Your task to perform on an android device: Check the news Image 0: 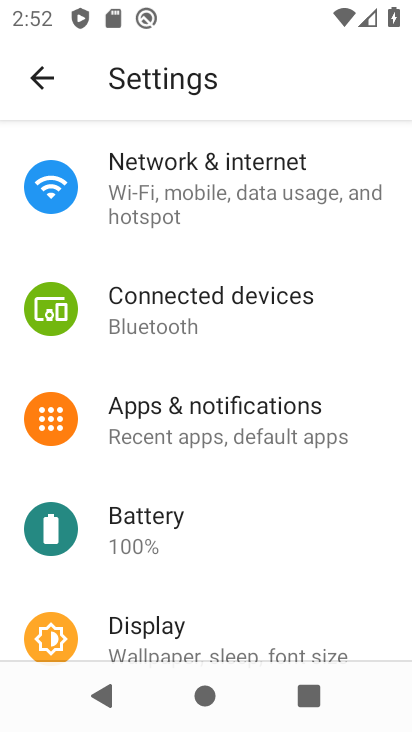
Step 0: press home button
Your task to perform on an android device: Check the news Image 1: 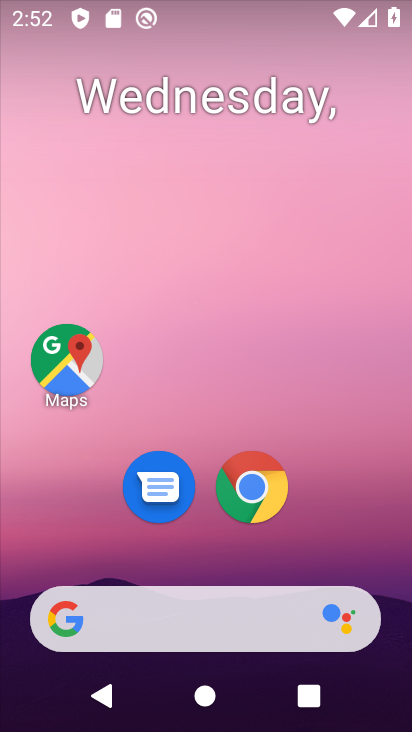
Step 1: task complete